Your task to perform on an android device: move a message to another label in the gmail app Image 0: 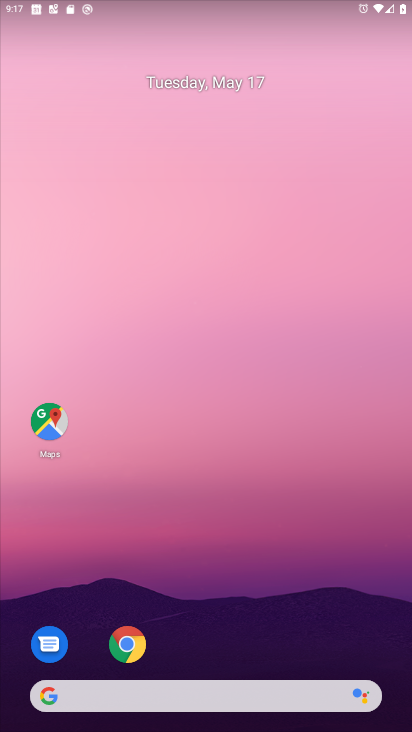
Step 0: drag from (203, 660) to (209, 58)
Your task to perform on an android device: move a message to another label in the gmail app Image 1: 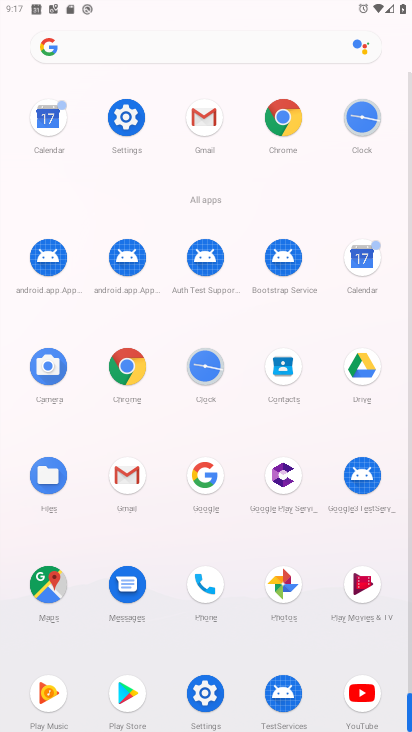
Step 1: click (202, 112)
Your task to perform on an android device: move a message to another label in the gmail app Image 2: 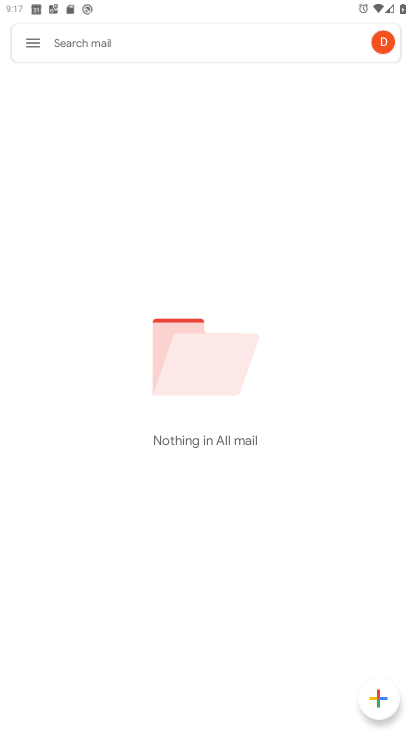
Step 2: task complete